Your task to perform on an android device: Check the weather Image 0: 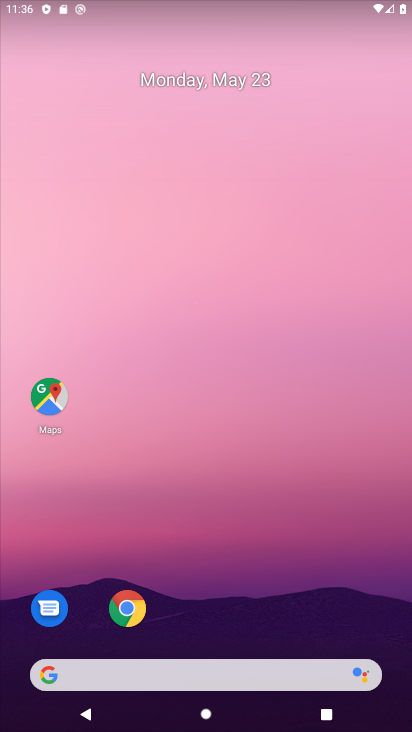
Step 0: press home button
Your task to perform on an android device: Check the weather Image 1: 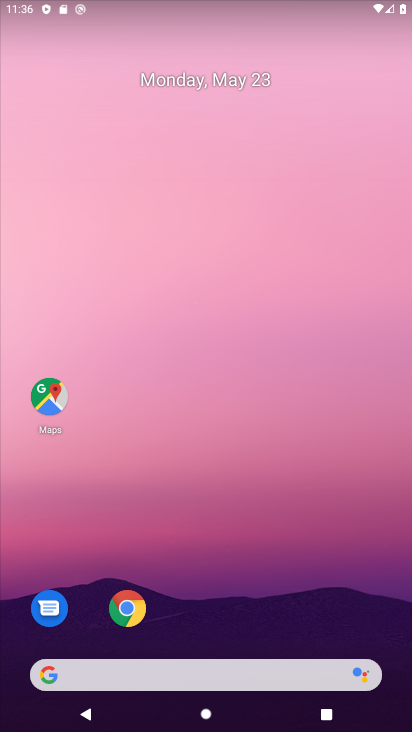
Step 1: drag from (15, 257) to (387, 295)
Your task to perform on an android device: Check the weather Image 2: 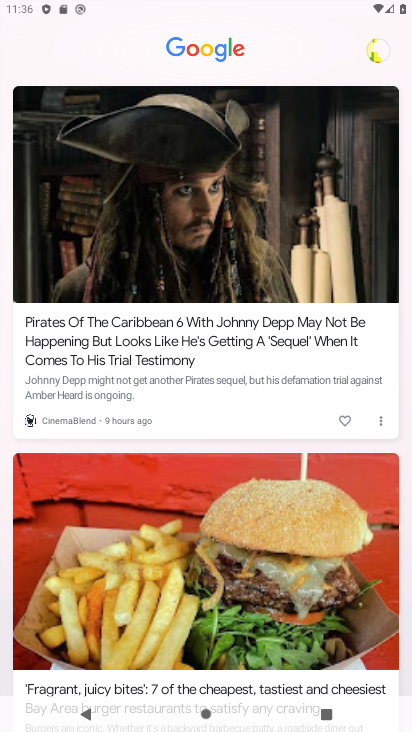
Step 2: drag from (235, 218) to (257, 659)
Your task to perform on an android device: Check the weather Image 3: 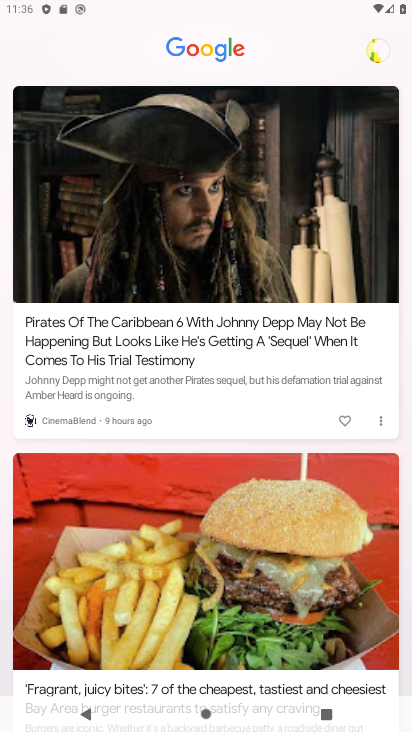
Step 3: drag from (237, 172) to (227, 587)
Your task to perform on an android device: Check the weather Image 4: 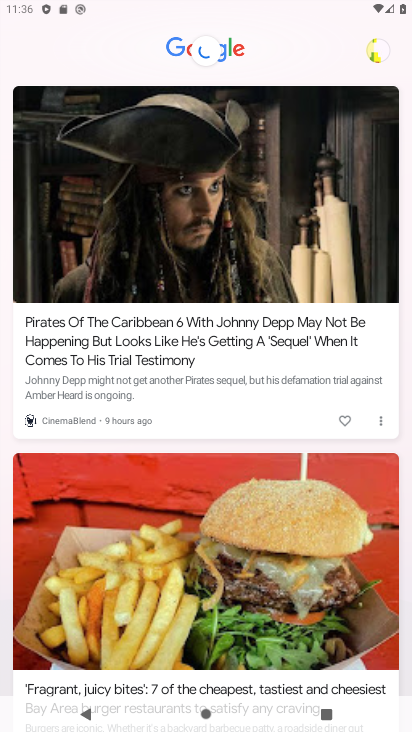
Step 4: press back button
Your task to perform on an android device: Check the weather Image 5: 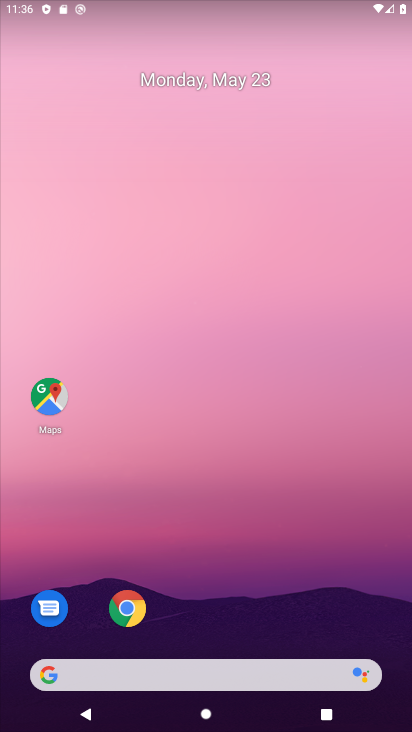
Step 5: drag from (216, 630) to (228, 102)
Your task to perform on an android device: Check the weather Image 6: 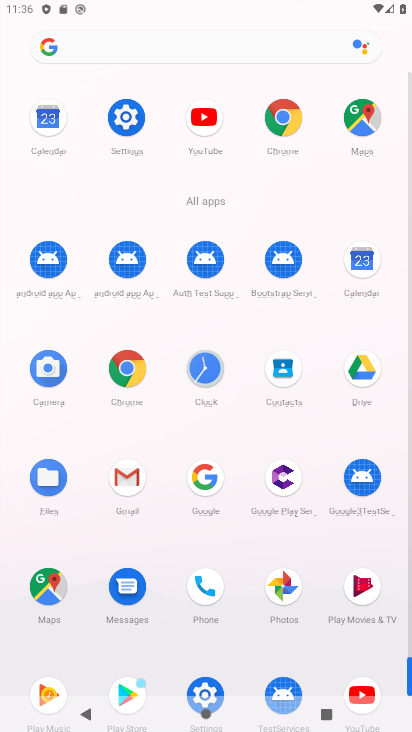
Step 6: click (143, 38)
Your task to perform on an android device: Check the weather Image 7: 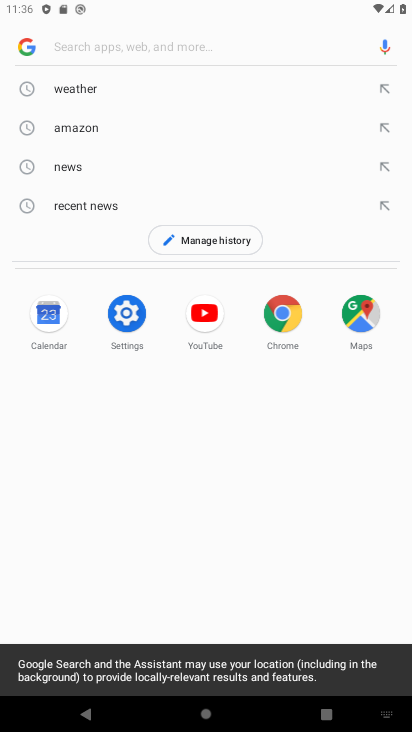
Step 7: click (96, 93)
Your task to perform on an android device: Check the weather Image 8: 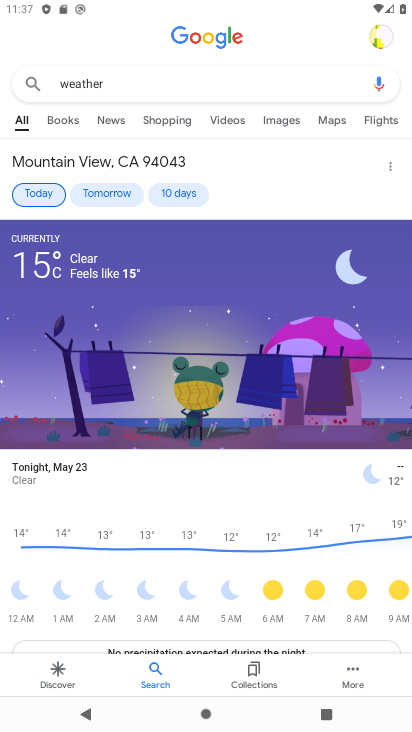
Step 8: task complete